Your task to perform on an android device: Open display settings Image 0: 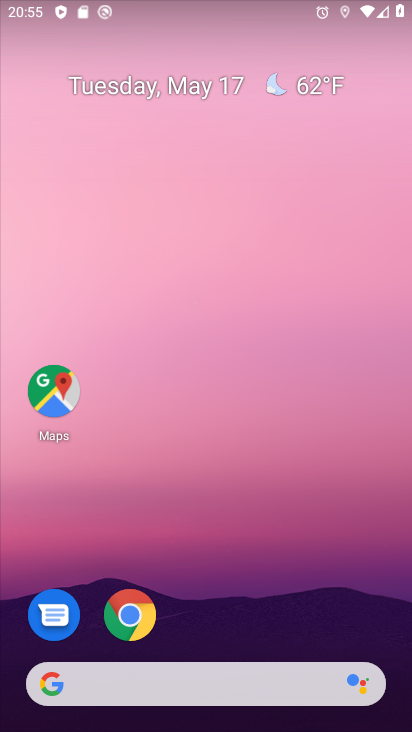
Step 0: drag from (251, 628) to (230, 149)
Your task to perform on an android device: Open display settings Image 1: 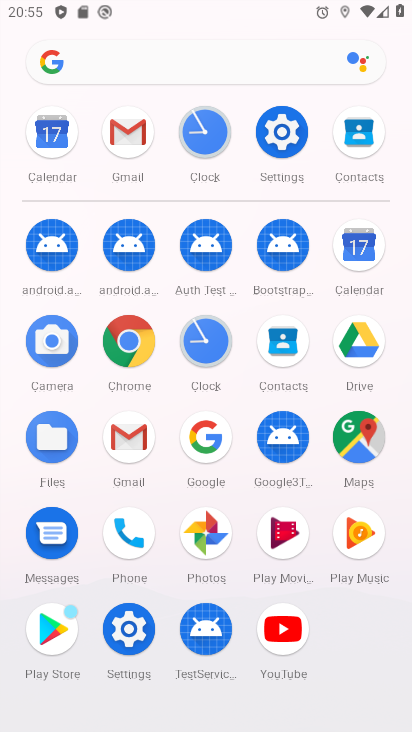
Step 1: click (281, 120)
Your task to perform on an android device: Open display settings Image 2: 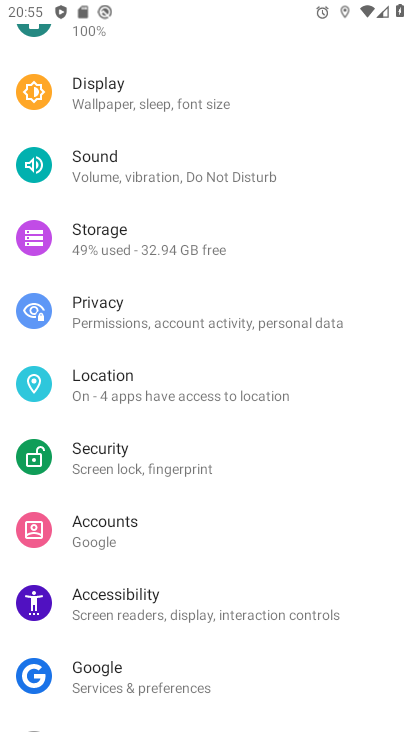
Step 2: click (108, 91)
Your task to perform on an android device: Open display settings Image 3: 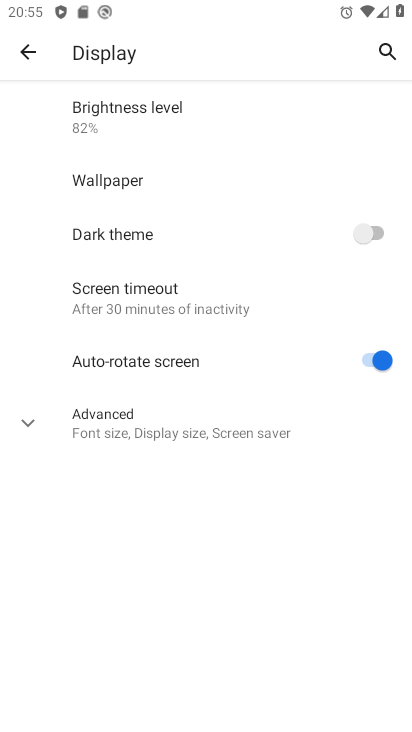
Step 3: task complete